Your task to perform on an android device: Set the phone to "Do not disturb". Image 0: 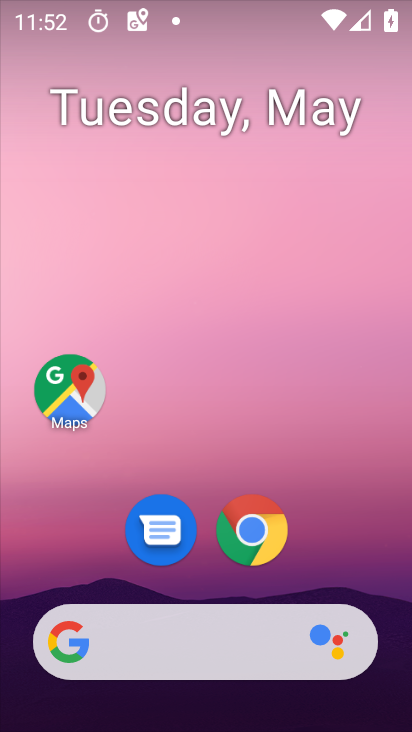
Step 0: drag from (169, 599) to (275, 57)
Your task to perform on an android device: Set the phone to "Do not disturb". Image 1: 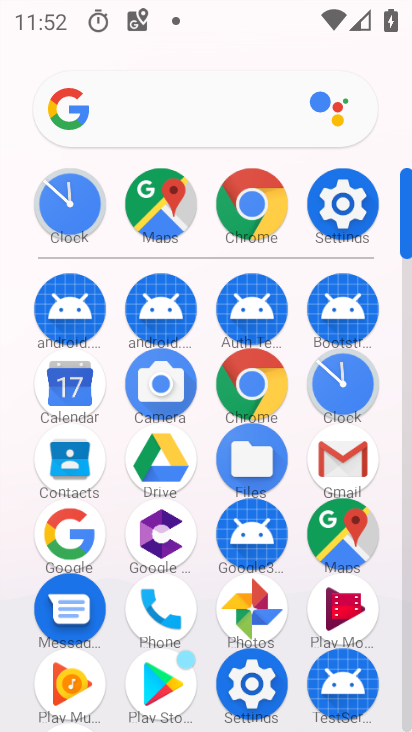
Step 1: click (335, 221)
Your task to perform on an android device: Set the phone to "Do not disturb". Image 2: 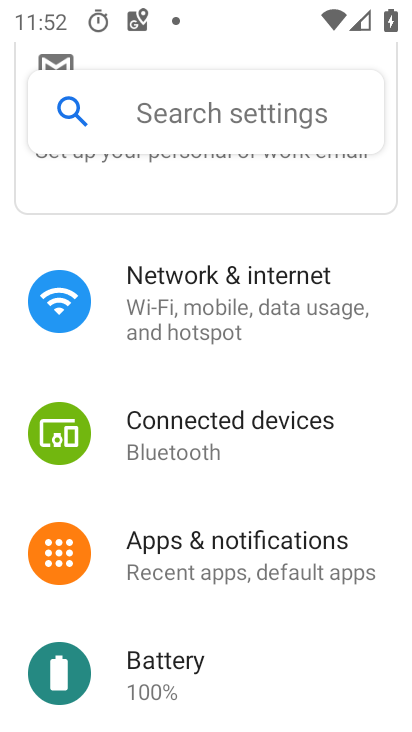
Step 2: drag from (292, 319) to (259, 589)
Your task to perform on an android device: Set the phone to "Do not disturb". Image 3: 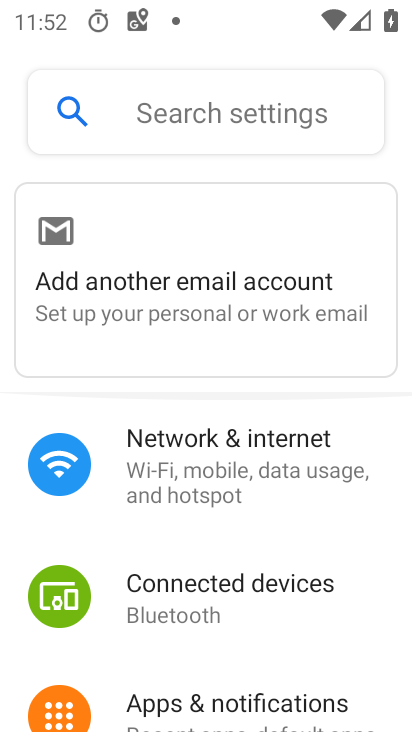
Step 3: drag from (248, 591) to (312, 154)
Your task to perform on an android device: Set the phone to "Do not disturb". Image 4: 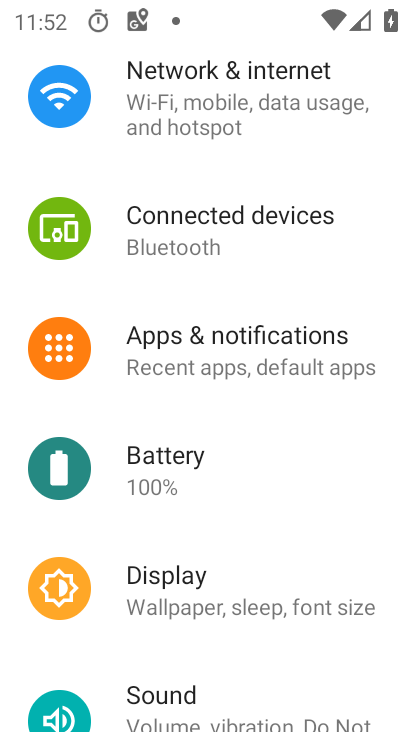
Step 4: drag from (205, 616) to (230, 387)
Your task to perform on an android device: Set the phone to "Do not disturb". Image 5: 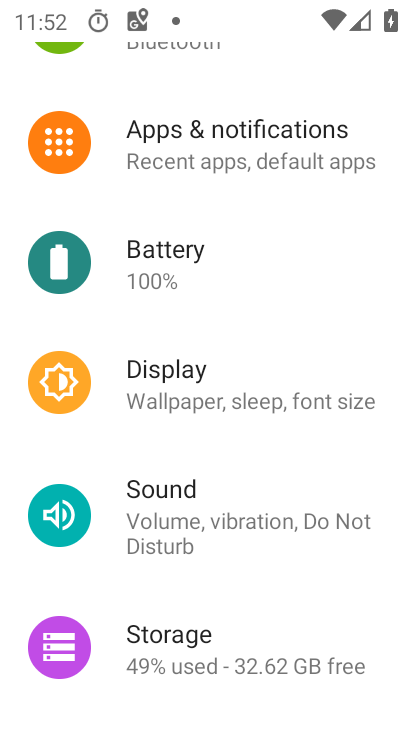
Step 5: click (199, 499)
Your task to perform on an android device: Set the phone to "Do not disturb". Image 6: 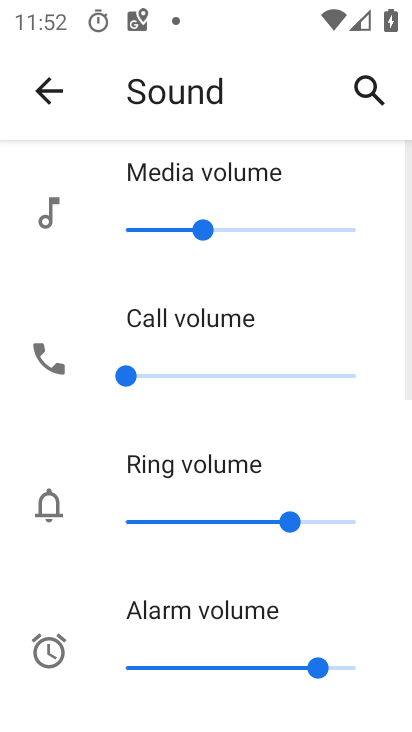
Step 6: drag from (196, 577) to (273, 62)
Your task to perform on an android device: Set the phone to "Do not disturb". Image 7: 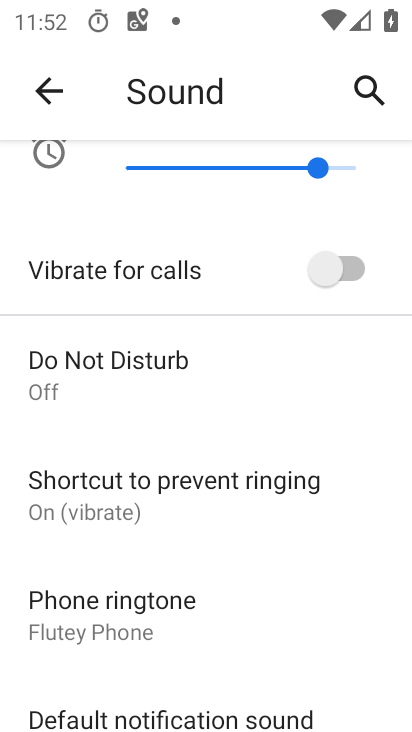
Step 7: click (128, 373)
Your task to perform on an android device: Set the phone to "Do not disturb". Image 8: 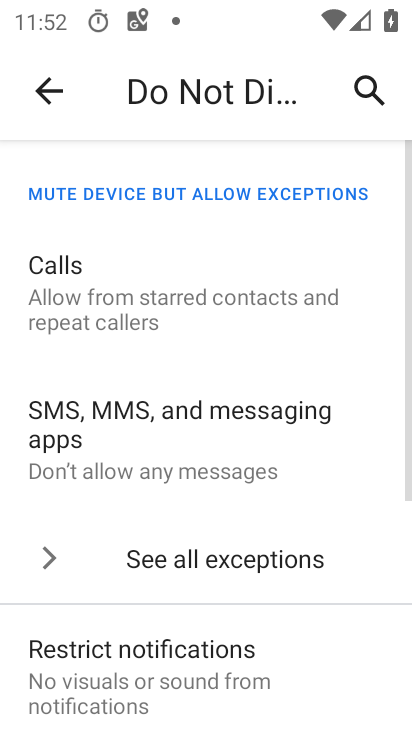
Step 8: drag from (193, 653) to (189, 173)
Your task to perform on an android device: Set the phone to "Do not disturb". Image 9: 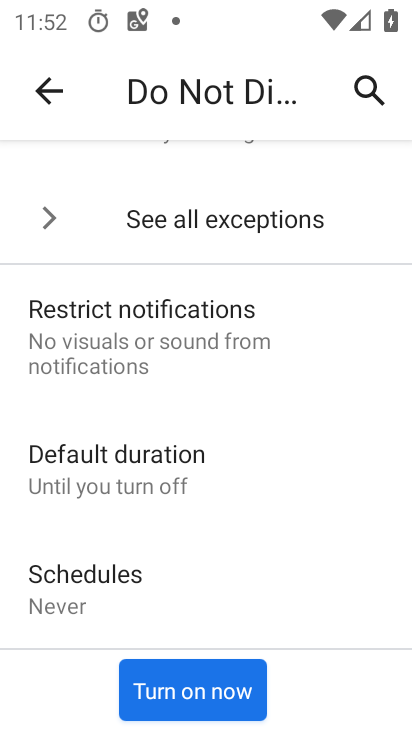
Step 9: click (166, 692)
Your task to perform on an android device: Set the phone to "Do not disturb". Image 10: 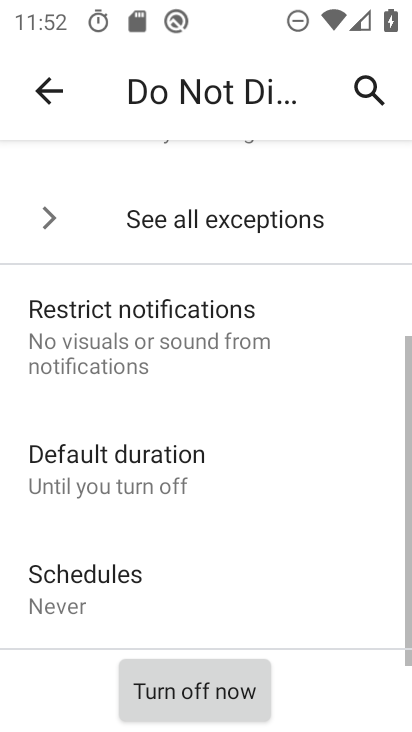
Step 10: task complete